Your task to perform on an android device: Open wifi settings Image 0: 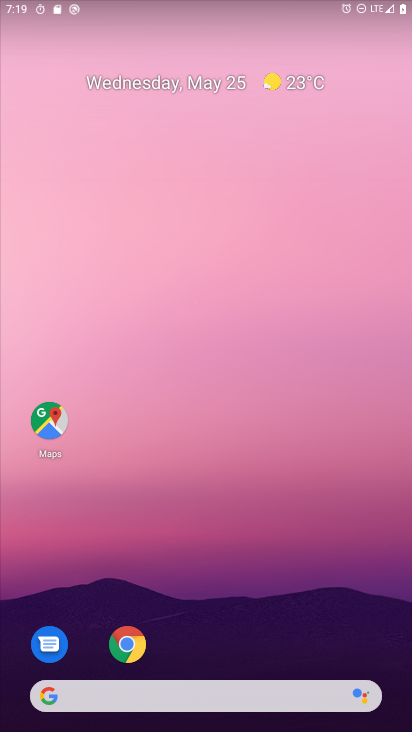
Step 0: drag from (341, 639) to (279, 56)
Your task to perform on an android device: Open wifi settings Image 1: 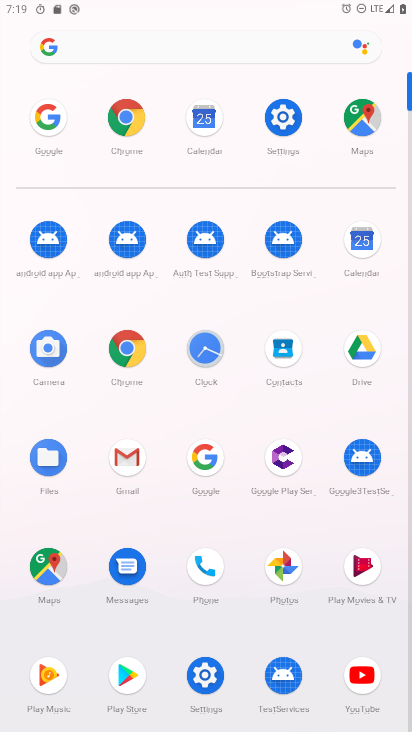
Step 1: click (200, 690)
Your task to perform on an android device: Open wifi settings Image 2: 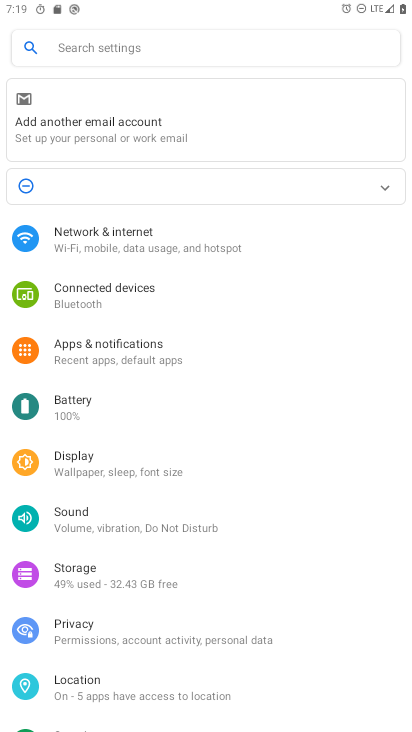
Step 2: click (130, 232)
Your task to perform on an android device: Open wifi settings Image 3: 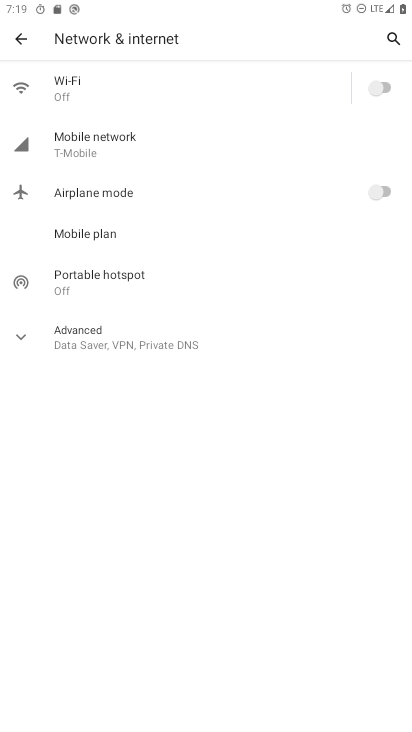
Step 3: click (201, 104)
Your task to perform on an android device: Open wifi settings Image 4: 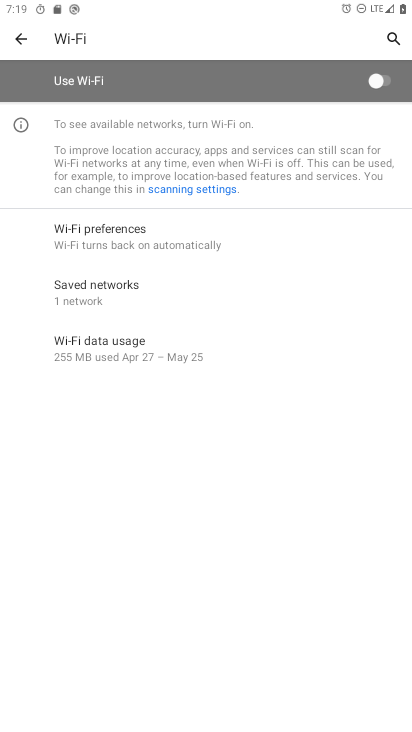
Step 4: task complete